Your task to perform on an android device: open app "NewsBreak: Local News & Alerts" Image 0: 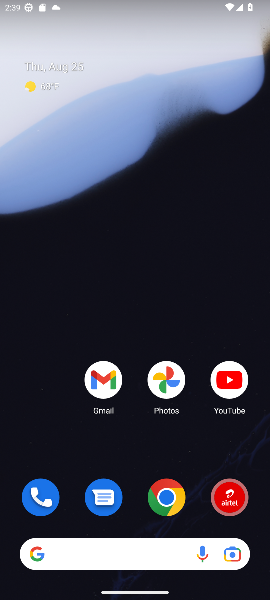
Step 0: drag from (128, 480) to (148, 178)
Your task to perform on an android device: open app "NewsBreak: Local News & Alerts" Image 1: 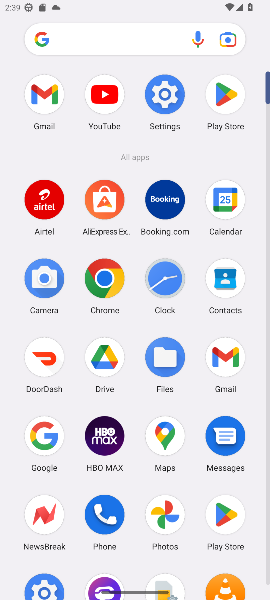
Step 1: click (215, 89)
Your task to perform on an android device: open app "NewsBreak: Local News & Alerts" Image 2: 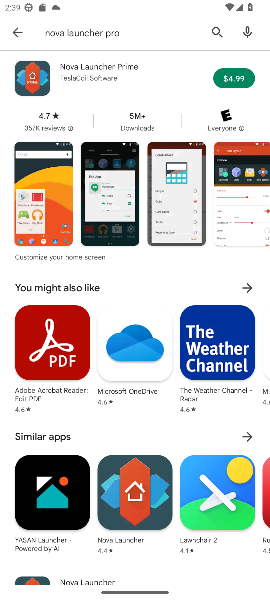
Step 2: click (18, 27)
Your task to perform on an android device: open app "NewsBreak: Local News & Alerts" Image 3: 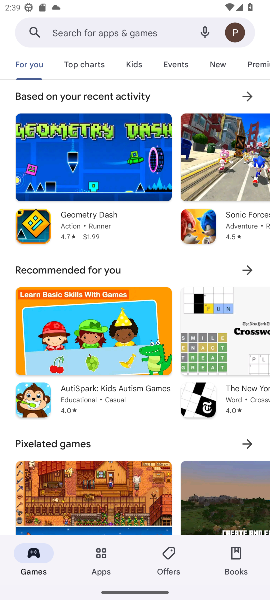
Step 3: click (157, 34)
Your task to perform on an android device: open app "NewsBreak: Local News & Alerts" Image 4: 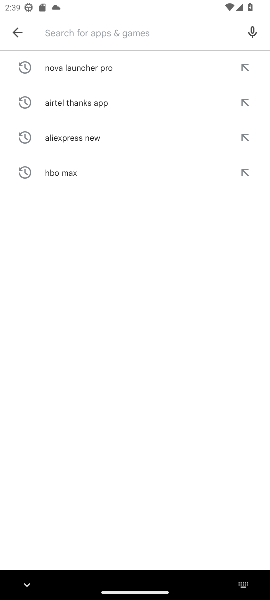
Step 4: type "NewsBreak: Local News & Alert "
Your task to perform on an android device: open app "NewsBreak: Local News & Alerts" Image 5: 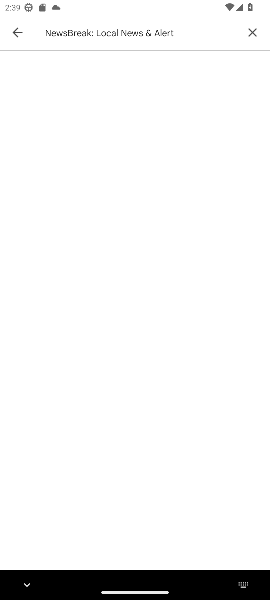
Step 5: click (185, 37)
Your task to perform on an android device: open app "NewsBreak: Local News & Alerts" Image 6: 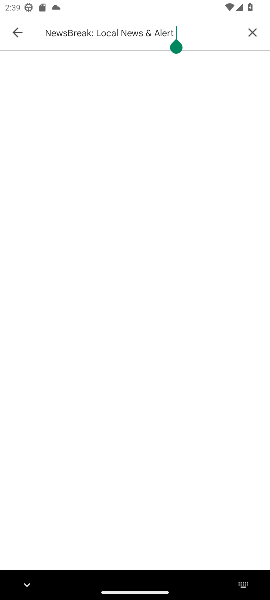
Step 6: click (168, 32)
Your task to perform on an android device: open app "NewsBreak: Local News & Alerts" Image 7: 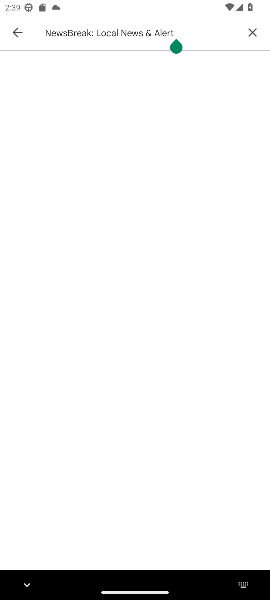
Step 7: click (162, 32)
Your task to perform on an android device: open app "NewsBreak: Local News & Alerts" Image 8: 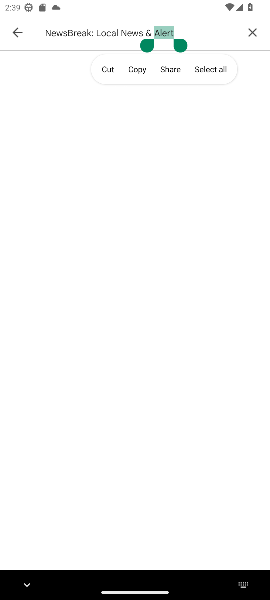
Step 8: click (109, 32)
Your task to perform on an android device: open app "NewsBreak: Local News & Alerts" Image 9: 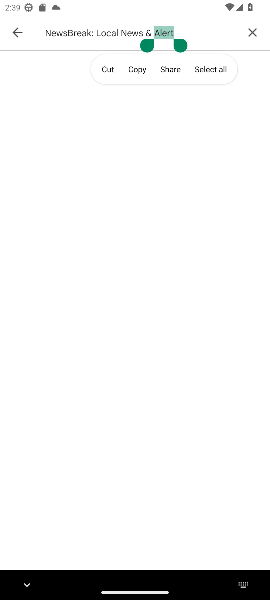
Step 9: click (109, 32)
Your task to perform on an android device: open app "NewsBreak: Local News & Alerts" Image 10: 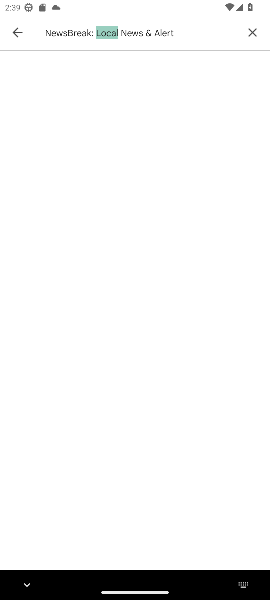
Step 10: click (109, 32)
Your task to perform on an android device: open app "NewsBreak: Local News & Alerts" Image 11: 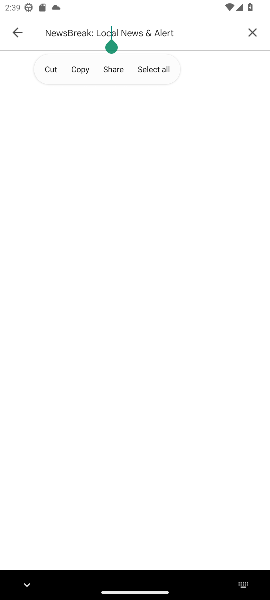
Step 11: click (109, 32)
Your task to perform on an android device: open app "NewsBreak: Local News & Alerts" Image 12: 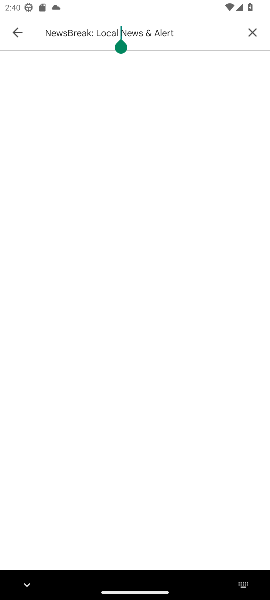
Step 12: click (121, 27)
Your task to perform on an android device: open app "NewsBreak: Local News & Alerts" Image 13: 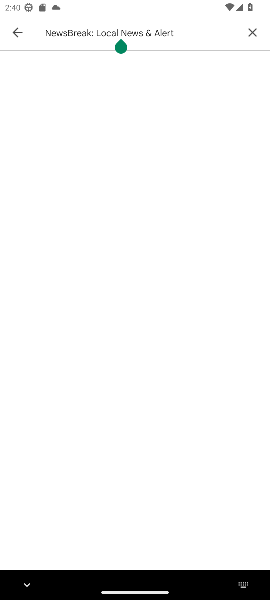
Step 13: click (118, 32)
Your task to perform on an android device: open app "NewsBreak: Local News & Alerts" Image 14: 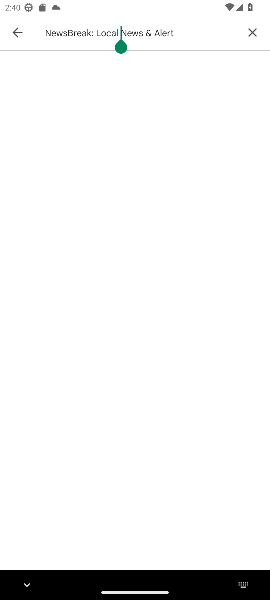
Step 14: click (118, 32)
Your task to perform on an android device: open app "NewsBreak: Local News & Alerts" Image 15: 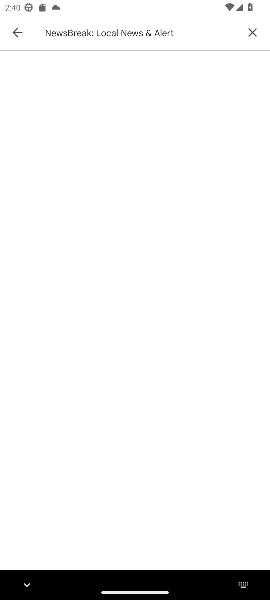
Step 15: drag from (116, 41) to (156, 43)
Your task to perform on an android device: open app "NewsBreak: Local News & Alerts" Image 16: 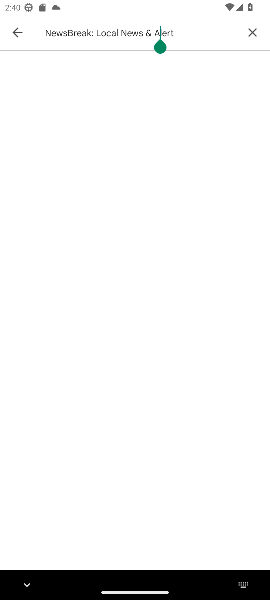
Step 16: click (254, 30)
Your task to perform on an android device: open app "NewsBreak: Local News & Alerts" Image 17: 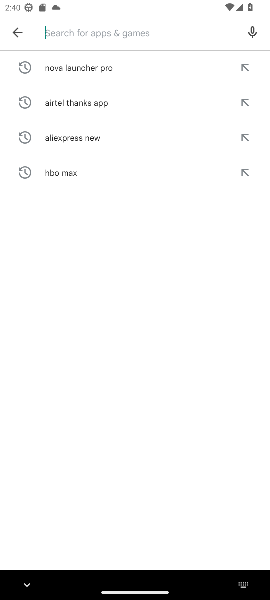
Step 17: click (135, 21)
Your task to perform on an android device: open app "NewsBreak: Local News & Alerts" Image 18: 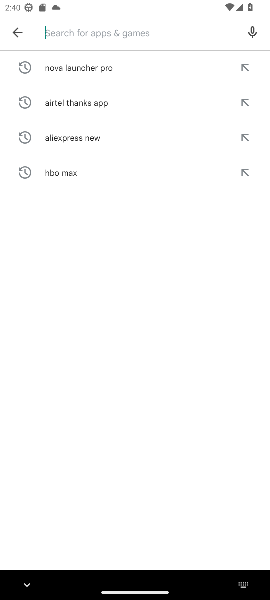
Step 18: type "NewsBreak "
Your task to perform on an android device: open app "NewsBreak: Local News & Alerts" Image 19: 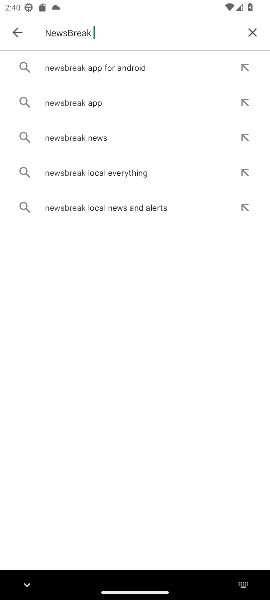
Step 19: click (83, 75)
Your task to perform on an android device: open app "NewsBreak: Local News & Alerts" Image 20: 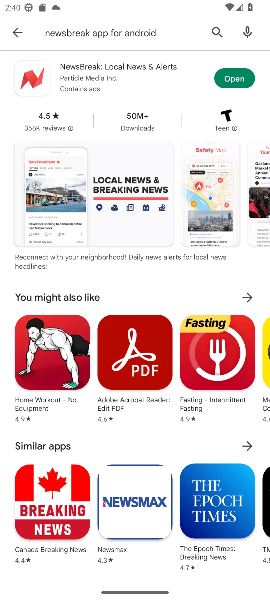
Step 20: click (242, 82)
Your task to perform on an android device: open app "NewsBreak: Local News & Alerts" Image 21: 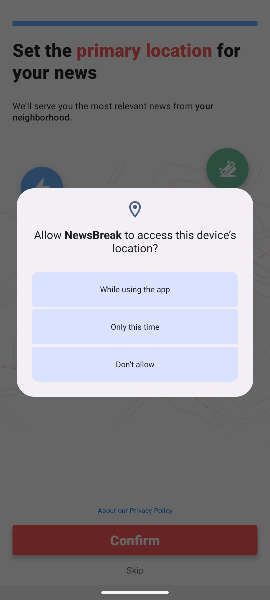
Step 21: click (130, 320)
Your task to perform on an android device: open app "NewsBreak: Local News & Alerts" Image 22: 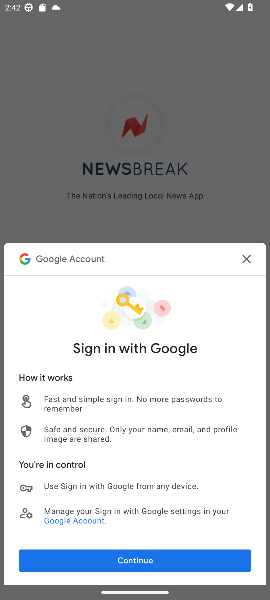
Step 22: click (192, 165)
Your task to perform on an android device: open app "NewsBreak: Local News & Alerts" Image 23: 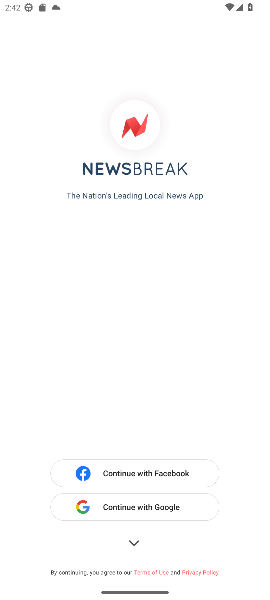
Step 23: task complete